Your task to perform on an android device: Open settings on Google Maps Image 0: 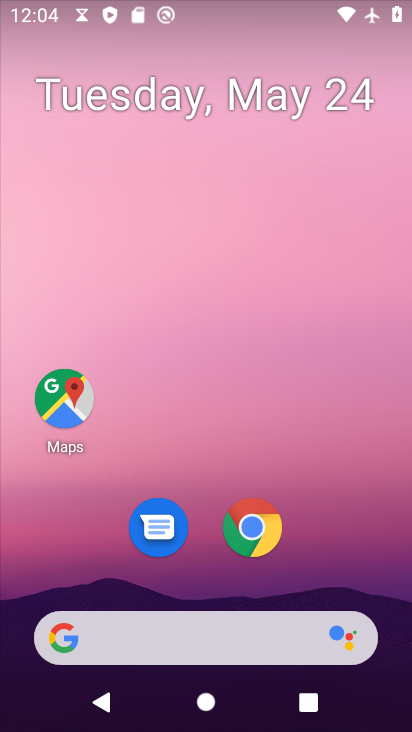
Step 0: press home button
Your task to perform on an android device: Open settings on Google Maps Image 1: 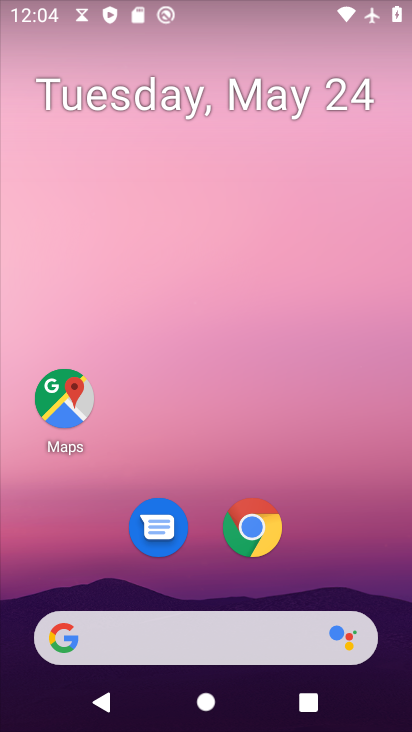
Step 1: click (61, 418)
Your task to perform on an android device: Open settings on Google Maps Image 2: 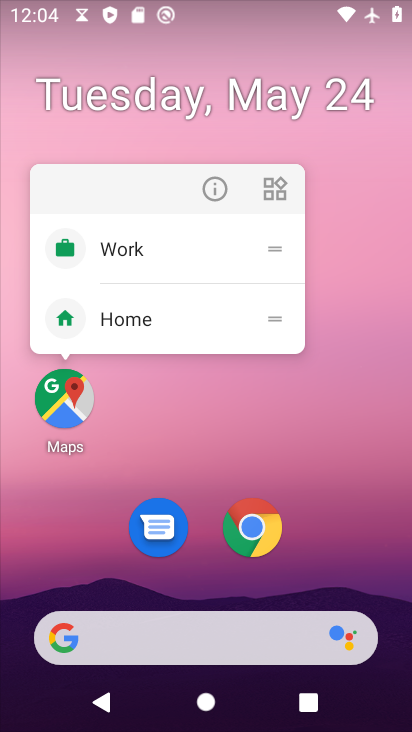
Step 2: click (72, 407)
Your task to perform on an android device: Open settings on Google Maps Image 3: 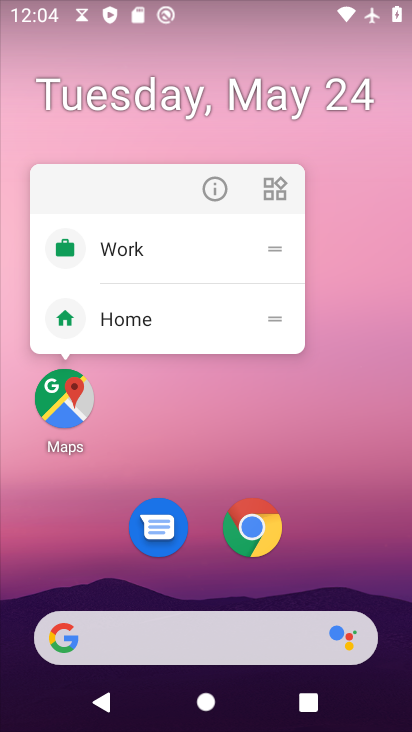
Step 3: click (63, 406)
Your task to perform on an android device: Open settings on Google Maps Image 4: 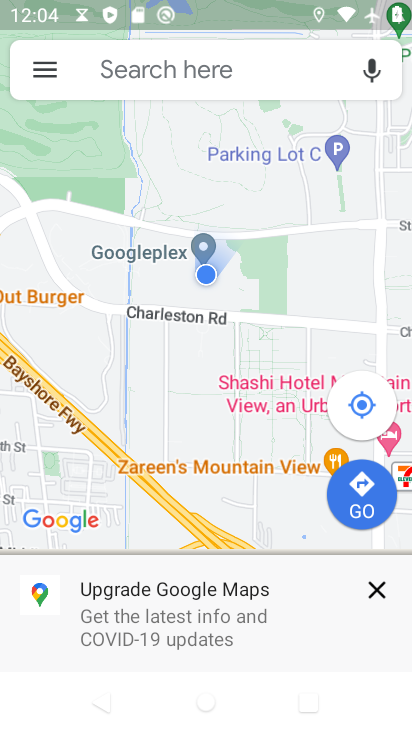
Step 4: click (40, 74)
Your task to perform on an android device: Open settings on Google Maps Image 5: 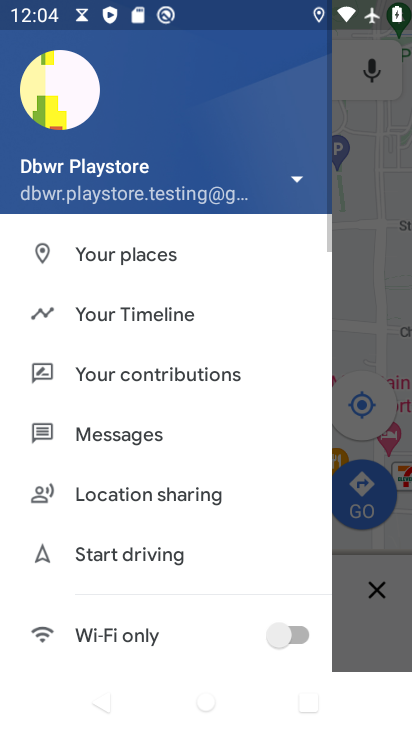
Step 5: drag from (193, 618) to (201, 190)
Your task to perform on an android device: Open settings on Google Maps Image 6: 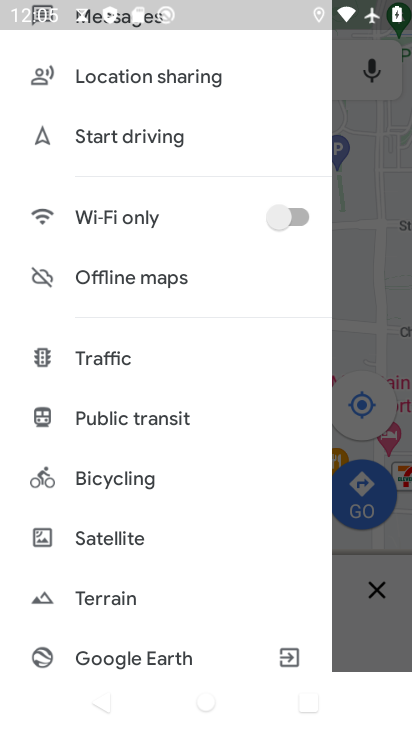
Step 6: drag from (238, 617) to (297, 95)
Your task to perform on an android device: Open settings on Google Maps Image 7: 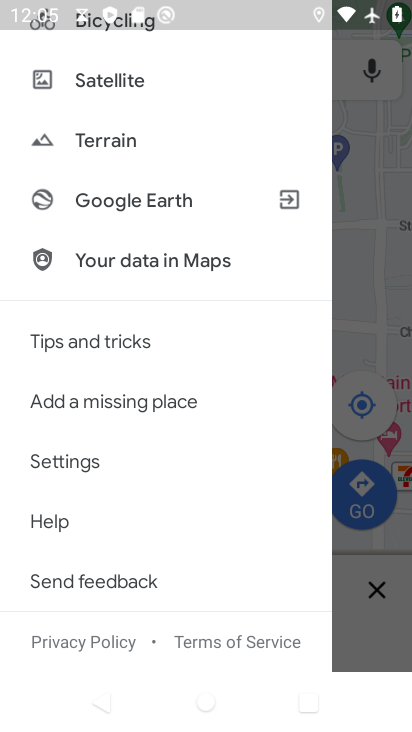
Step 7: click (66, 459)
Your task to perform on an android device: Open settings on Google Maps Image 8: 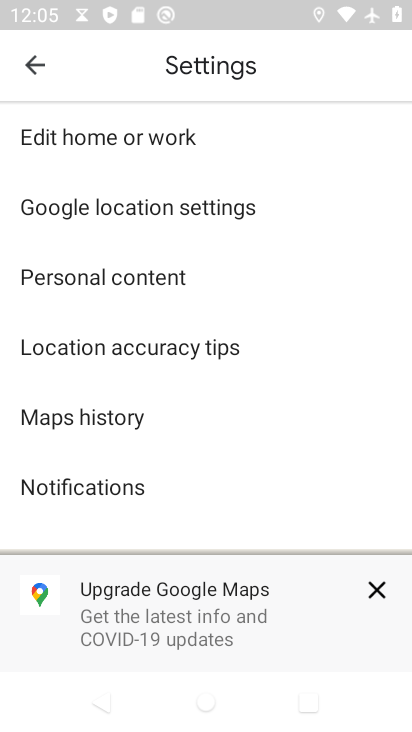
Step 8: task complete